Your task to perform on an android device: change the upload size in google photos Image 0: 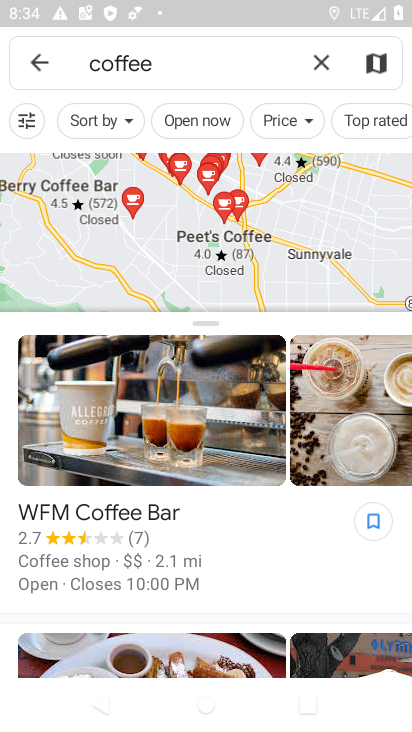
Step 0: press home button
Your task to perform on an android device: change the upload size in google photos Image 1: 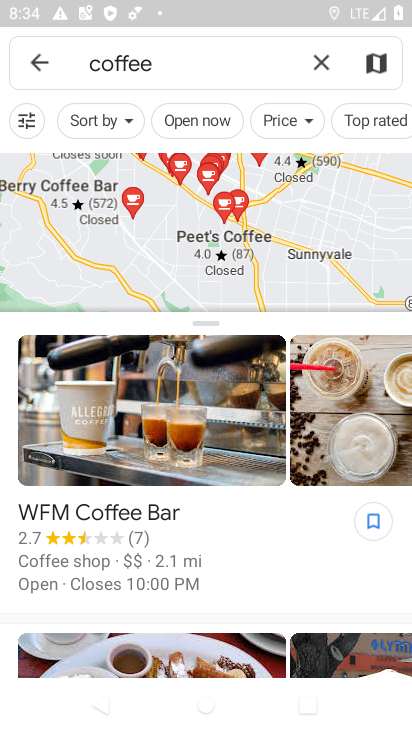
Step 1: press home button
Your task to perform on an android device: change the upload size in google photos Image 2: 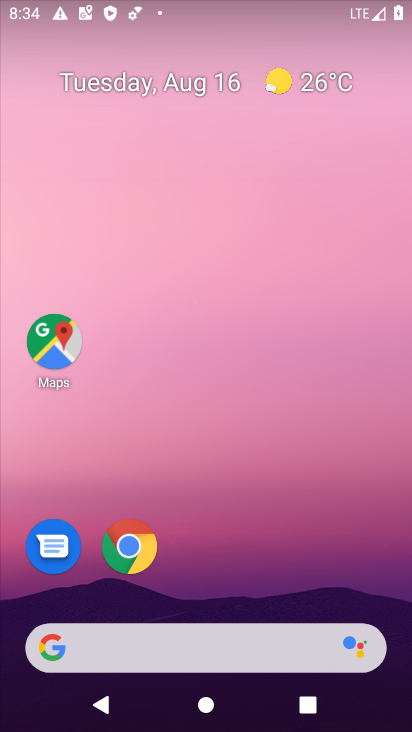
Step 2: drag from (231, 555) to (224, 9)
Your task to perform on an android device: change the upload size in google photos Image 3: 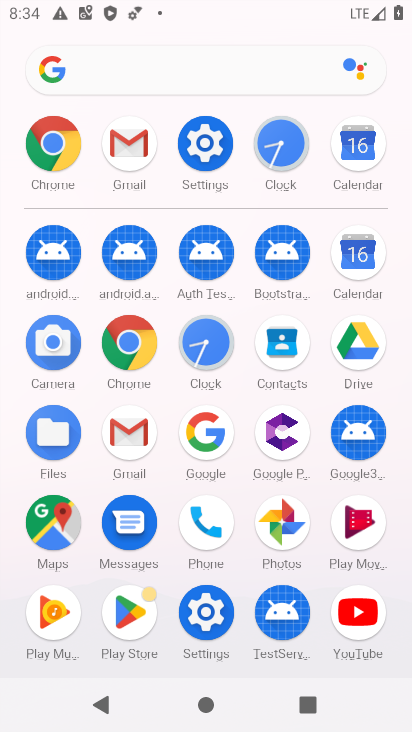
Step 3: click (285, 514)
Your task to perform on an android device: change the upload size in google photos Image 4: 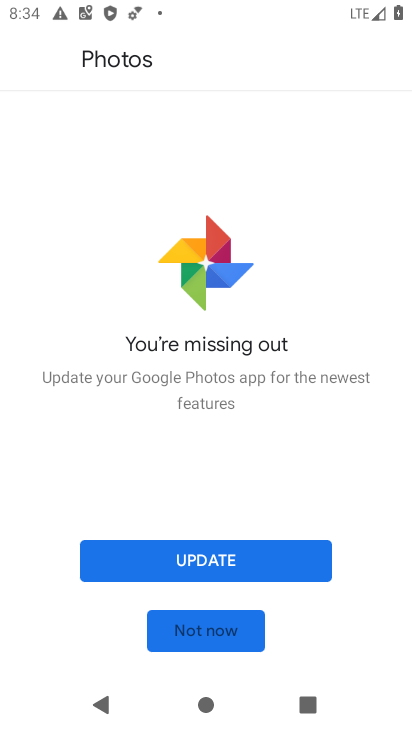
Step 4: click (231, 627)
Your task to perform on an android device: change the upload size in google photos Image 5: 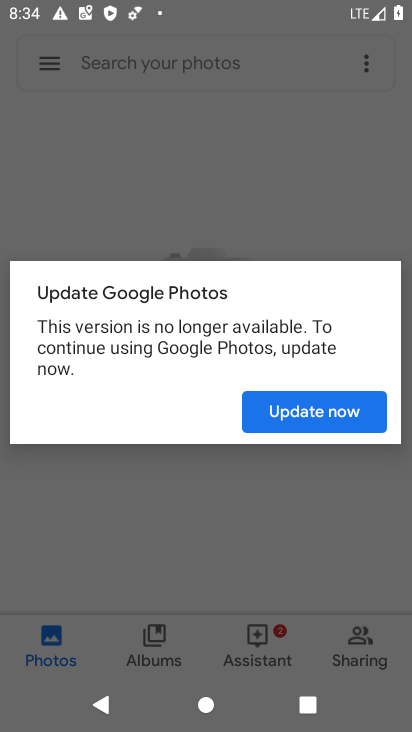
Step 5: click (313, 414)
Your task to perform on an android device: change the upload size in google photos Image 6: 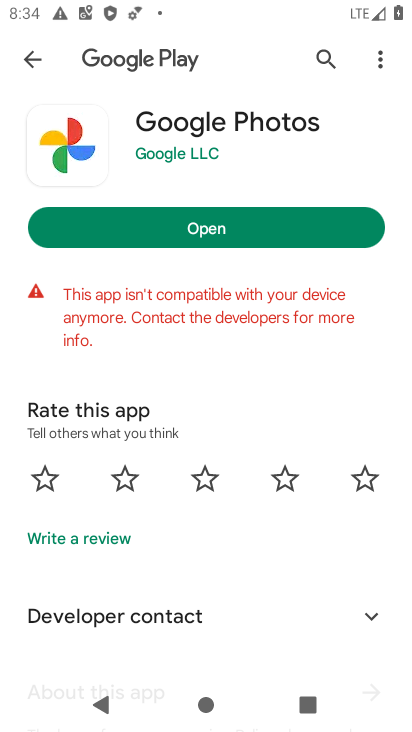
Step 6: click (288, 227)
Your task to perform on an android device: change the upload size in google photos Image 7: 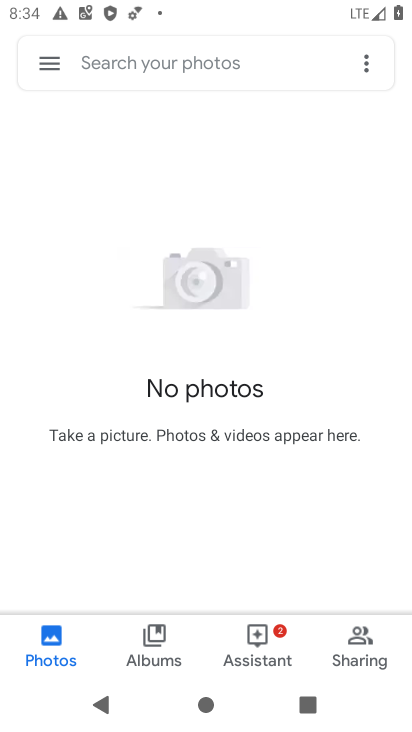
Step 7: click (53, 61)
Your task to perform on an android device: change the upload size in google photos Image 8: 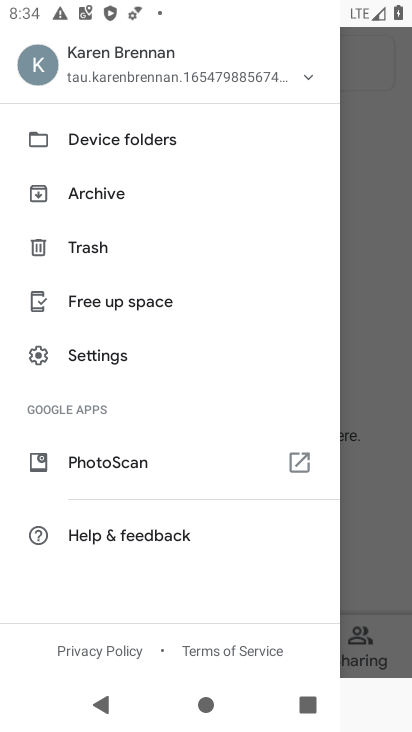
Step 8: click (123, 355)
Your task to perform on an android device: change the upload size in google photos Image 9: 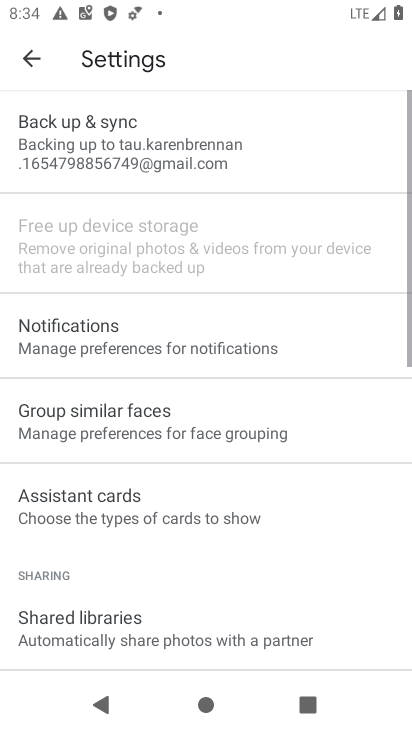
Step 9: click (135, 139)
Your task to perform on an android device: change the upload size in google photos Image 10: 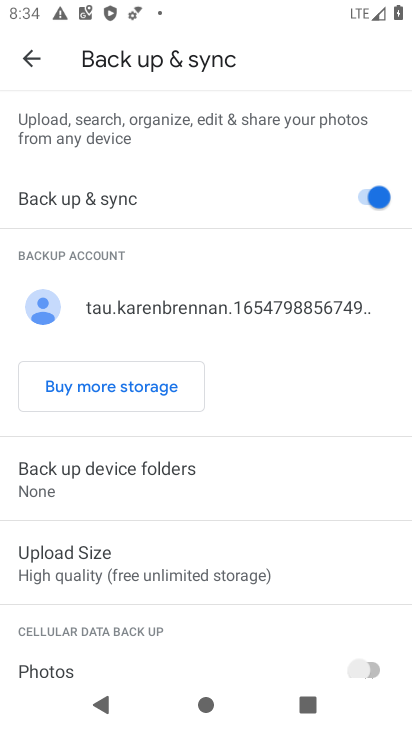
Step 10: click (116, 552)
Your task to perform on an android device: change the upload size in google photos Image 11: 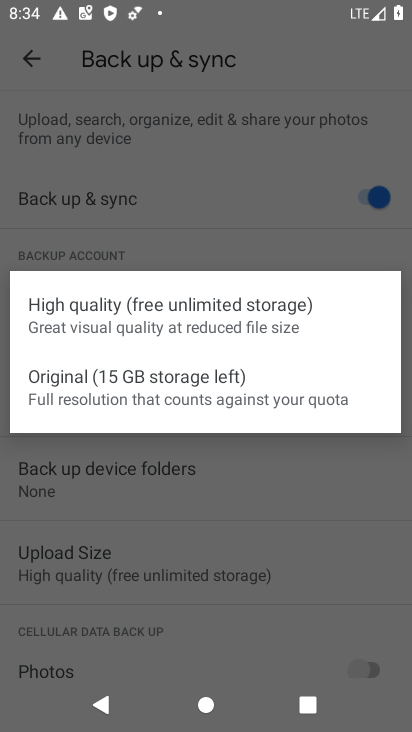
Step 11: click (173, 382)
Your task to perform on an android device: change the upload size in google photos Image 12: 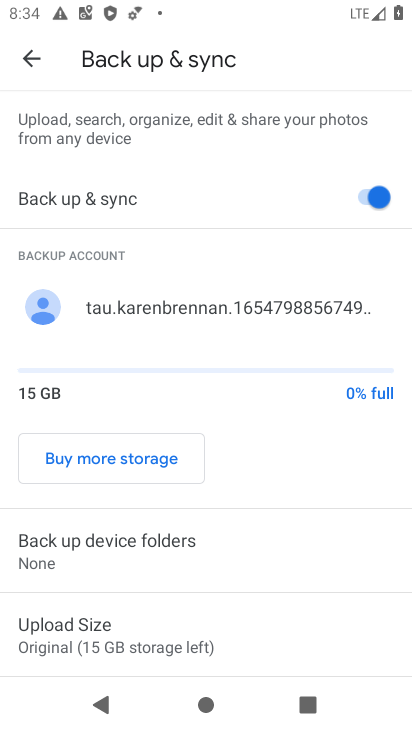
Step 12: task complete